Your task to perform on an android device: turn on the 24-hour format for clock Image 0: 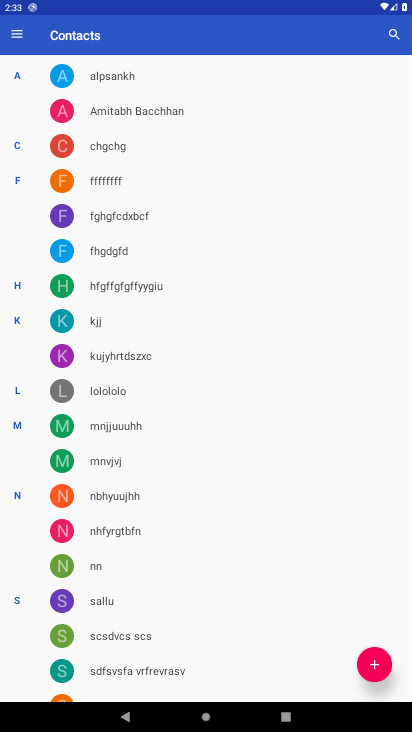
Step 0: press home button
Your task to perform on an android device: turn on the 24-hour format for clock Image 1: 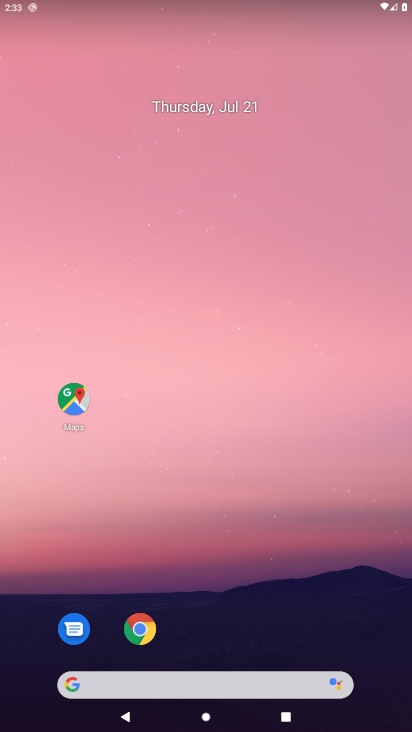
Step 1: drag from (75, 589) to (280, 128)
Your task to perform on an android device: turn on the 24-hour format for clock Image 2: 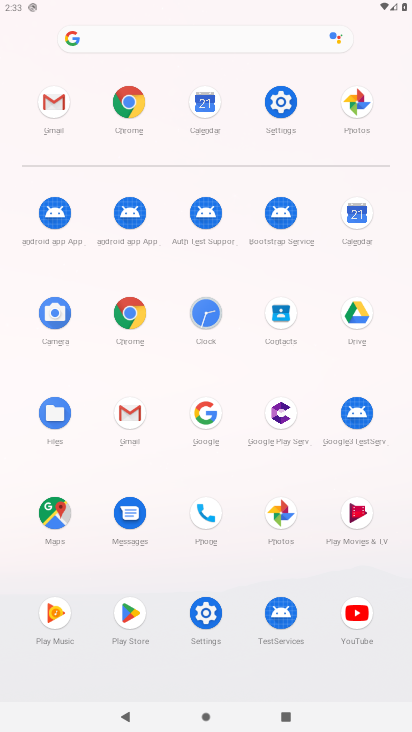
Step 2: click (206, 322)
Your task to perform on an android device: turn on the 24-hour format for clock Image 3: 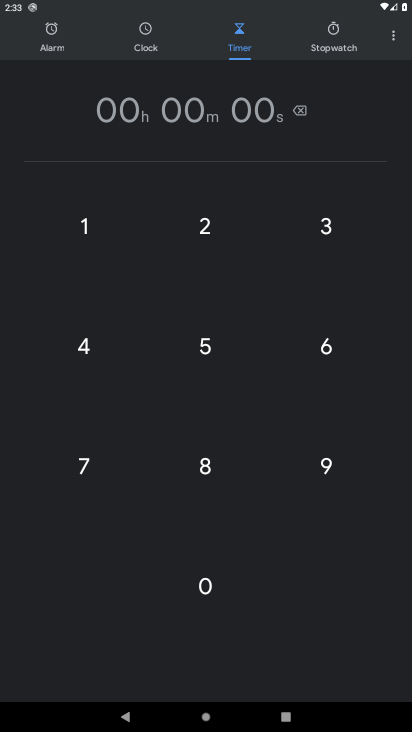
Step 3: click (397, 40)
Your task to perform on an android device: turn on the 24-hour format for clock Image 4: 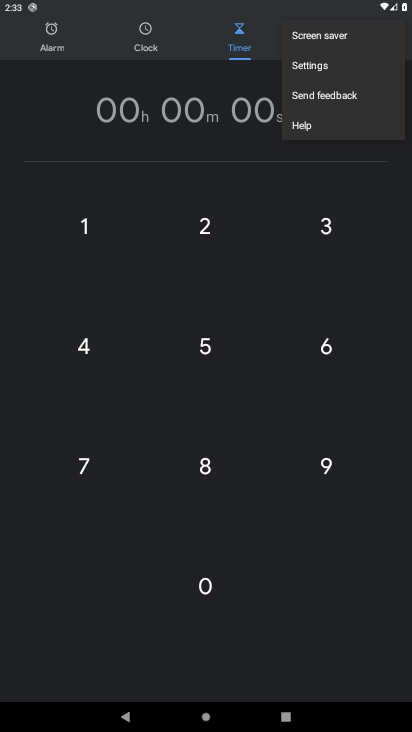
Step 4: click (320, 71)
Your task to perform on an android device: turn on the 24-hour format for clock Image 5: 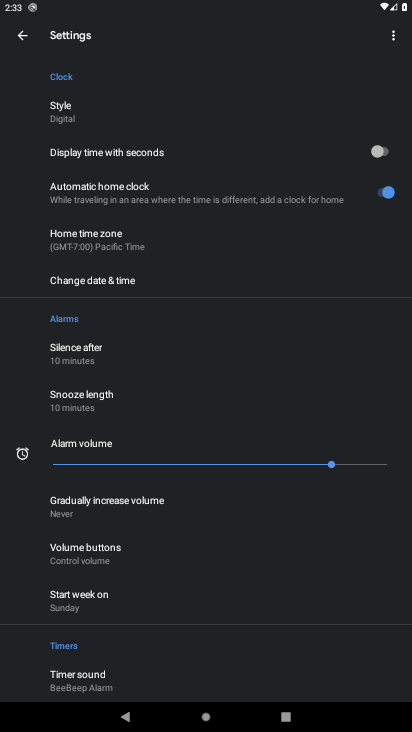
Step 5: drag from (238, 682) to (287, 464)
Your task to perform on an android device: turn on the 24-hour format for clock Image 6: 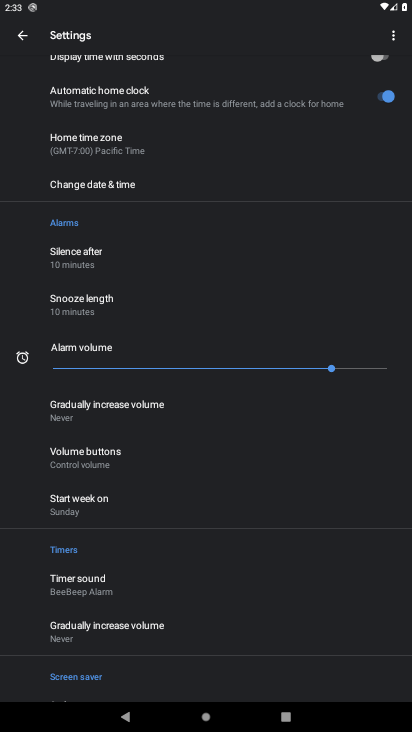
Step 6: click (91, 184)
Your task to perform on an android device: turn on the 24-hour format for clock Image 7: 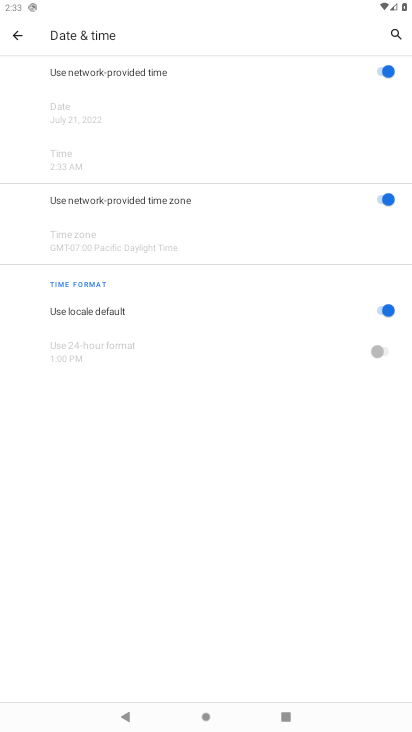
Step 7: click (376, 307)
Your task to perform on an android device: turn on the 24-hour format for clock Image 8: 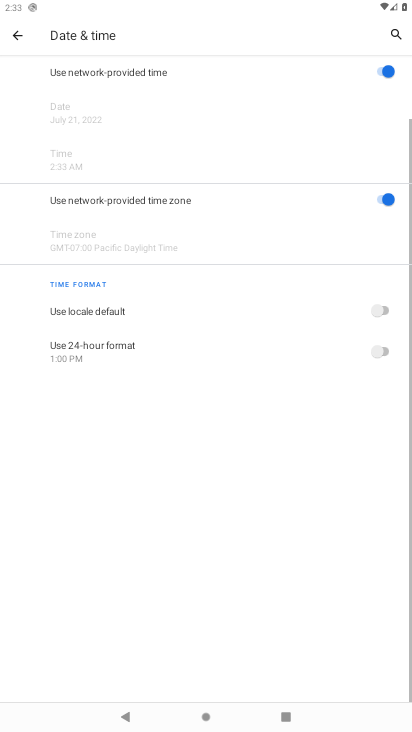
Step 8: click (376, 349)
Your task to perform on an android device: turn on the 24-hour format for clock Image 9: 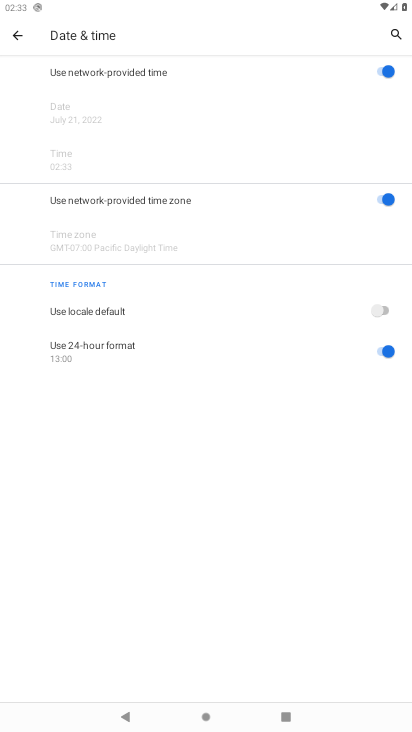
Step 9: task complete